Your task to perform on an android device: Open eBay Image 0: 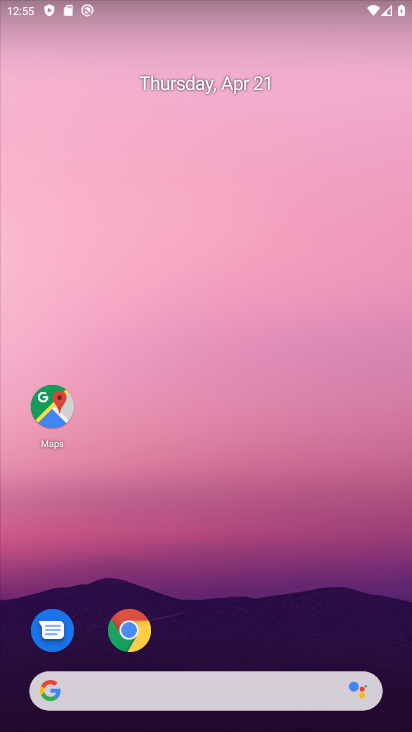
Step 0: click (127, 641)
Your task to perform on an android device: Open eBay Image 1: 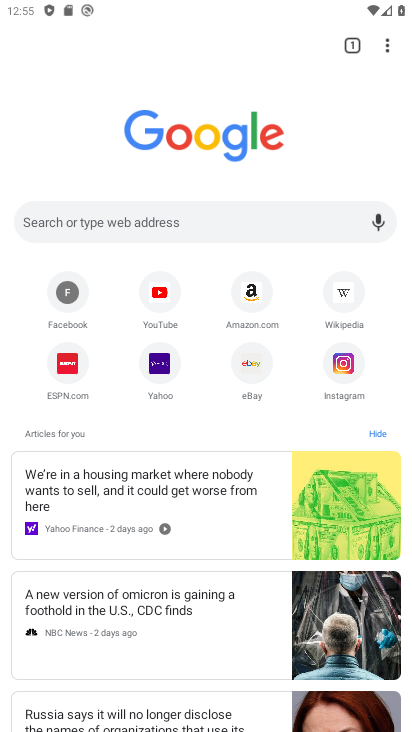
Step 1: click (154, 223)
Your task to perform on an android device: Open eBay Image 2: 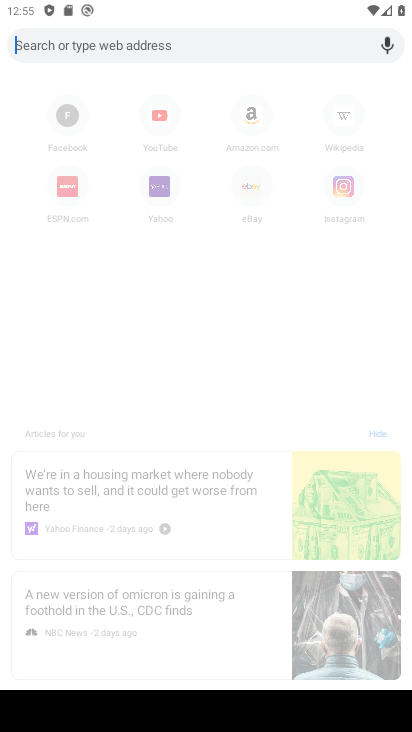
Step 2: type "ebay"
Your task to perform on an android device: Open eBay Image 3: 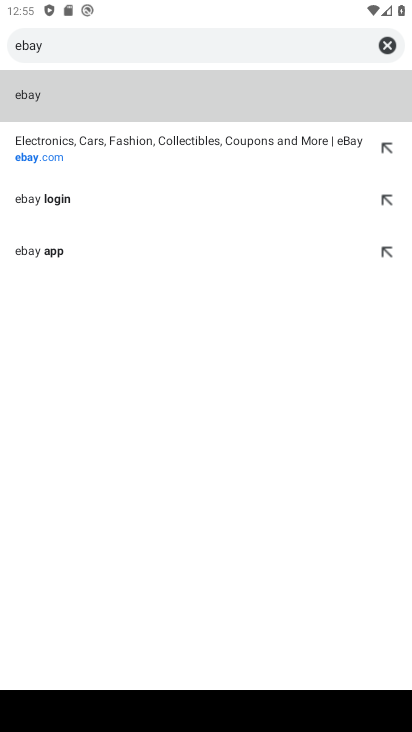
Step 3: click (102, 161)
Your task to perform on an android device: Open eBay Image 4: 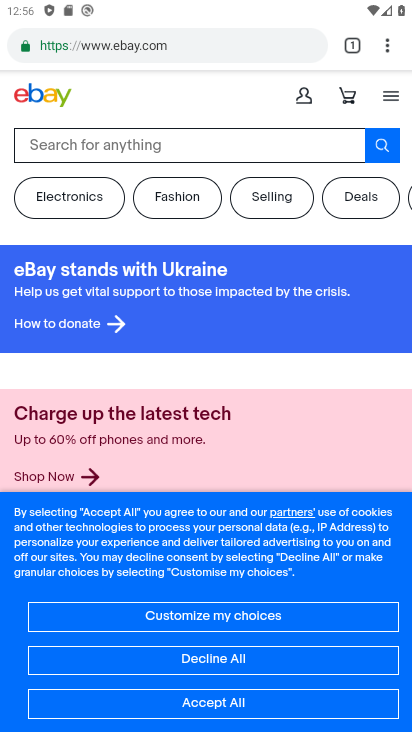
Step 4: task complete